Your task to perform on an android device: set the timer Image 0: 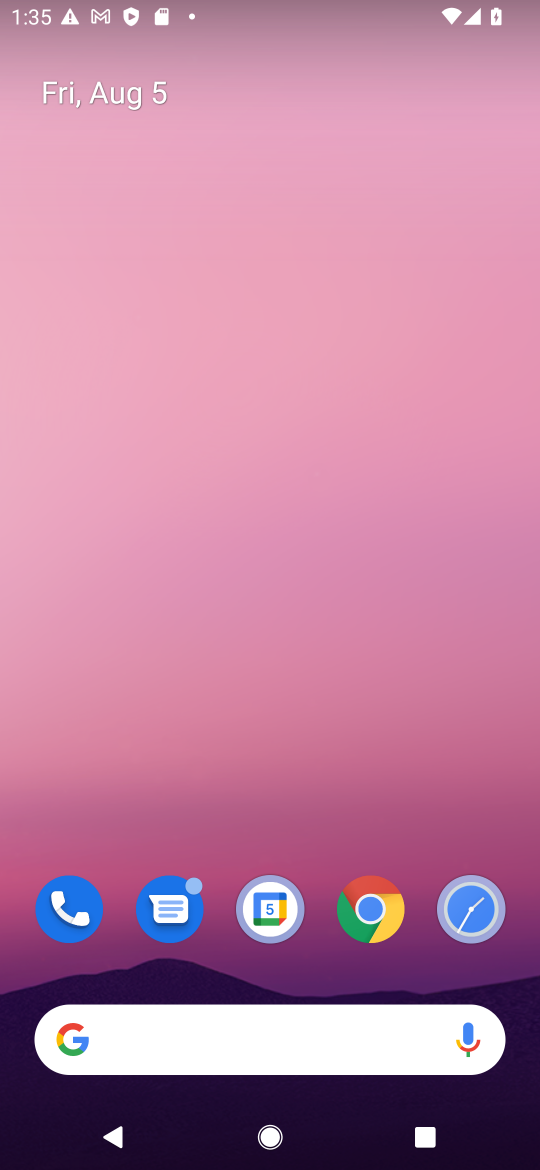
Step 0: drag from (232, 232) to (197, 10)
Your task to perform on an android device: set the timer Image 1: 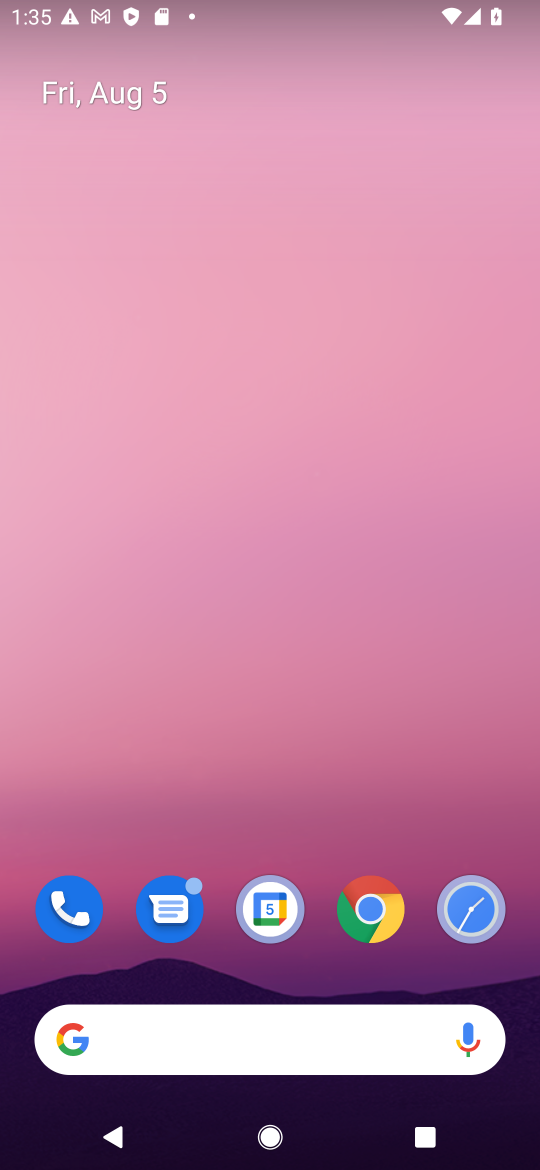
Step 1: drag from (304, 684) to (329, 29)
Your task to perform on an android device: set the timer Image 2: 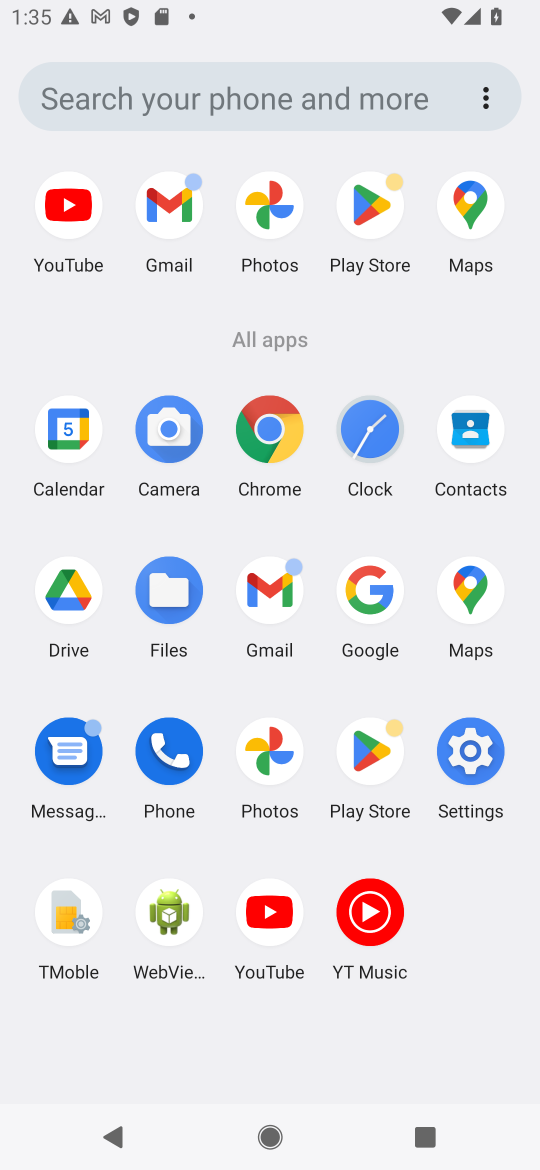
Step 2: click (374, 426)
Your task to perform on an android device: set the timer Image 3: 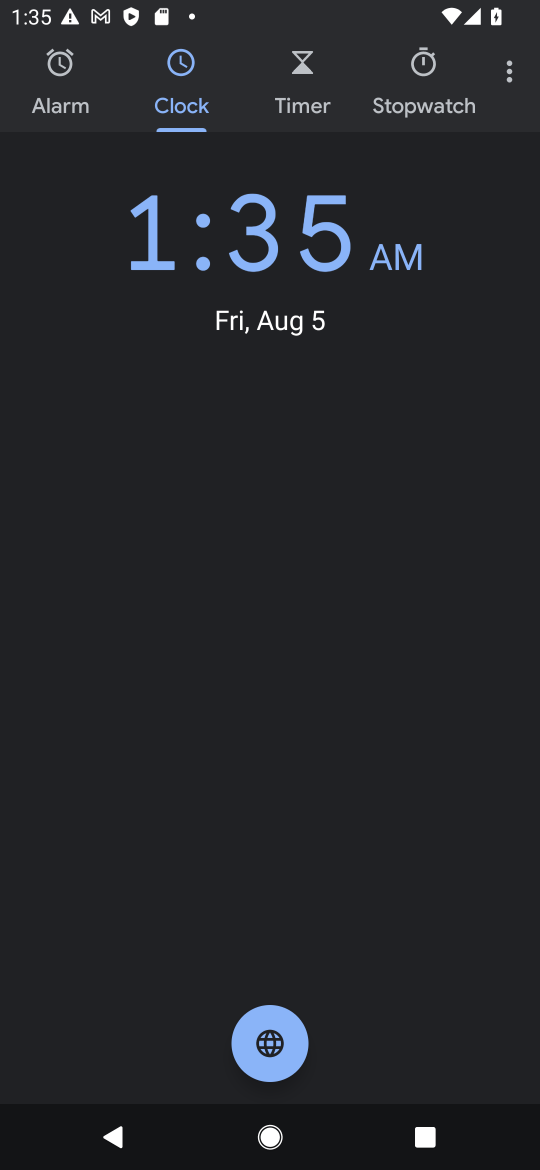
Step 3: click (291, 86)
Your task to perform on an android device: set the timer Image 4: 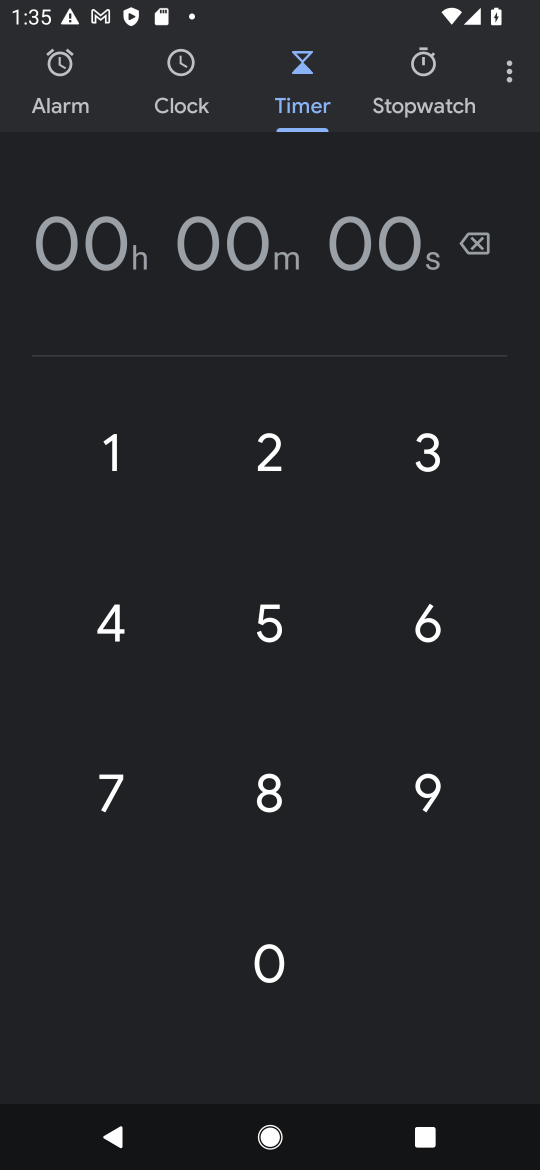
Step 4: click (121, 459)
Your task to perform on an android device: set the timer Image 5: 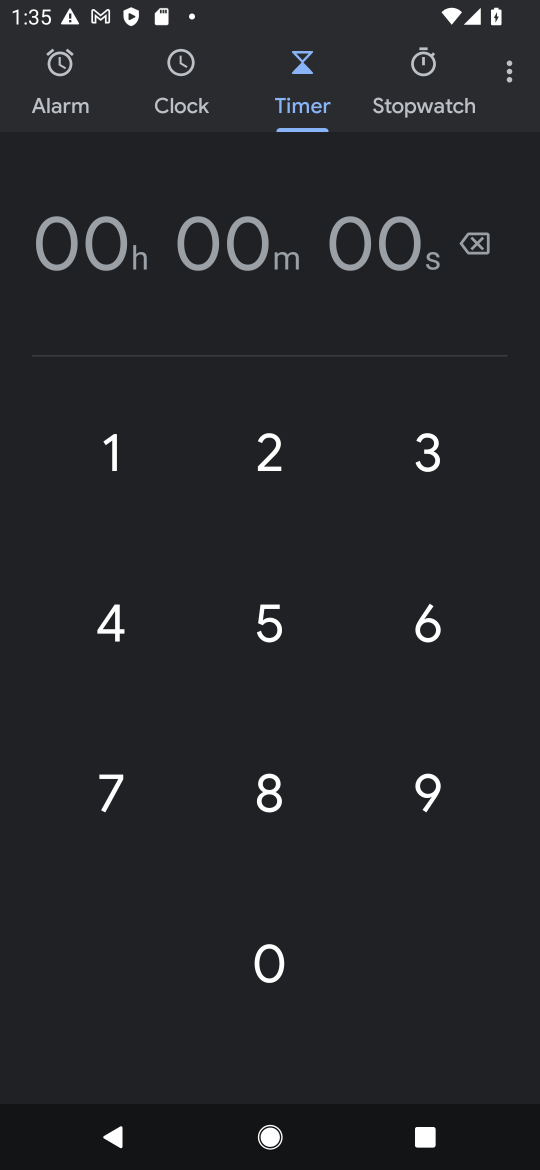
Step 5: click (121, 459)
Your task to perform on an android device: set the timer Image 6: 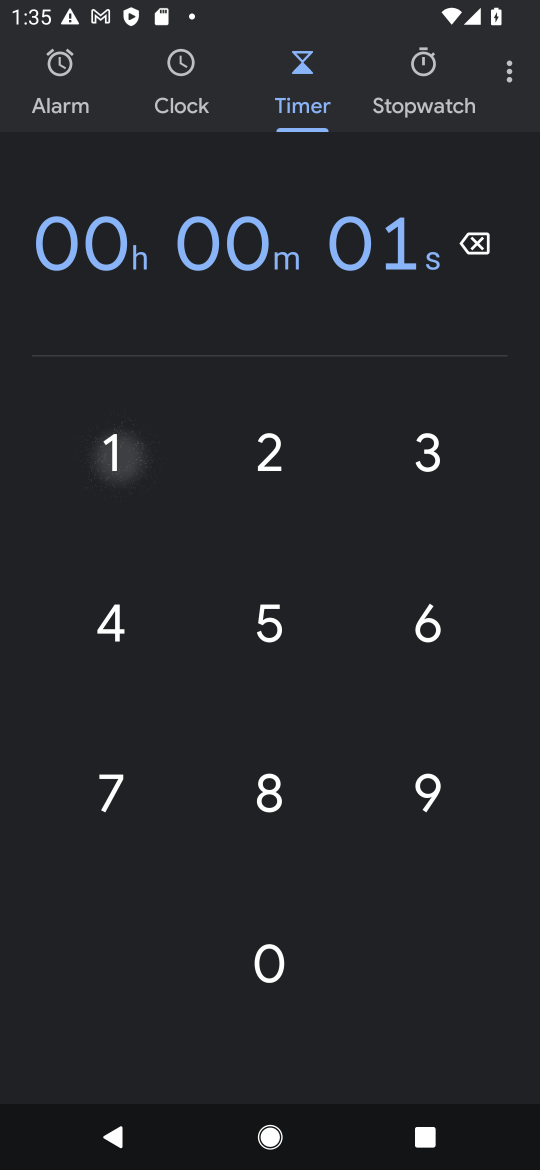
Step 6: click (121, 459)
Your task to perform on an android device: set the timer Image 7: 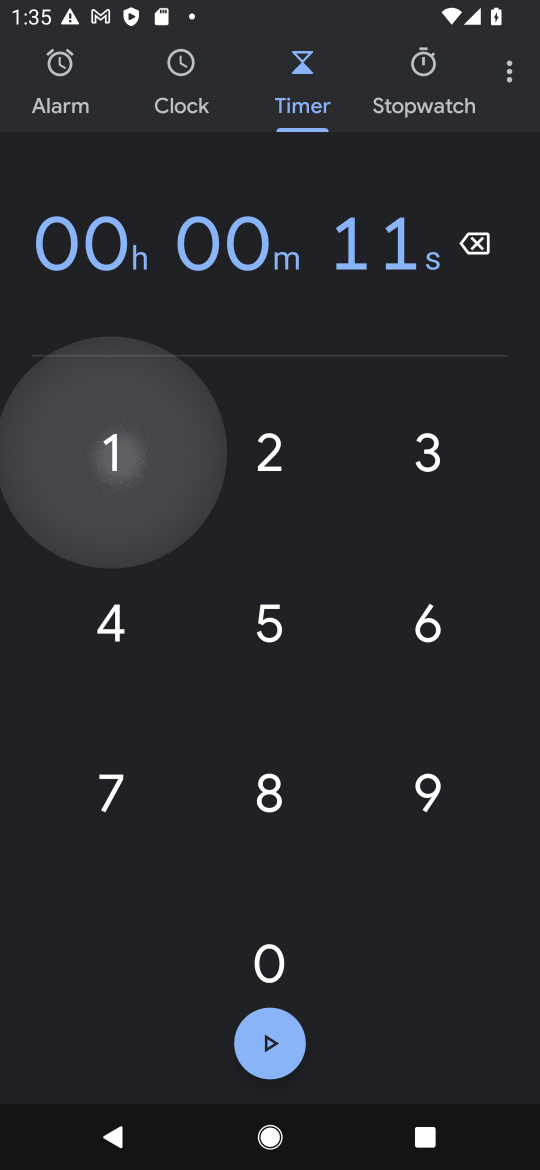
Step 7: click (121, 459)
Your task to perform on an android device: set the timer Image 8: 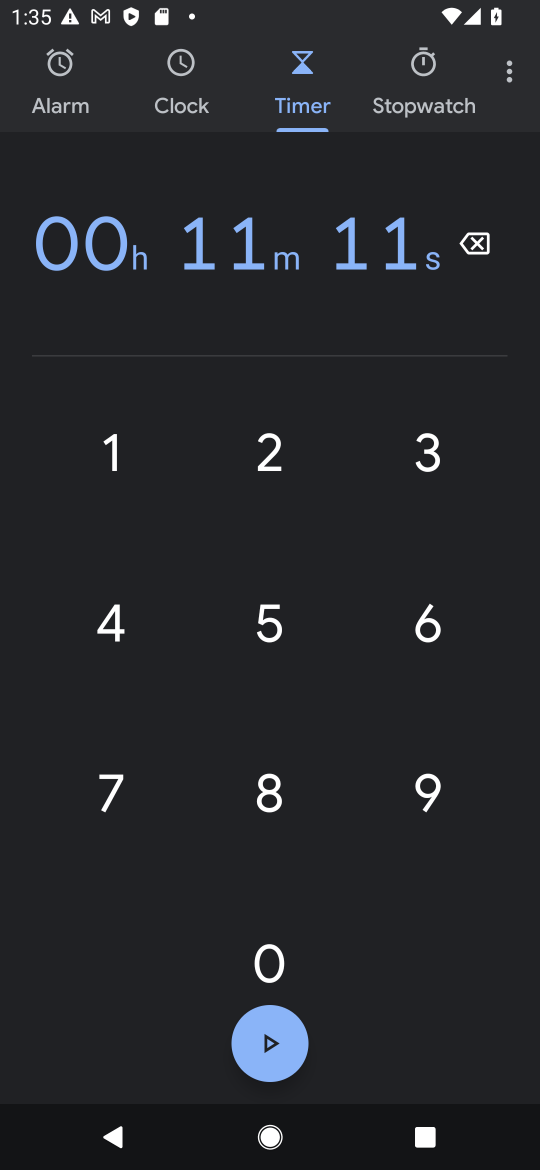
Step 8: click (121, 459)
Your task to perform on an android device: set the timer Image 9: 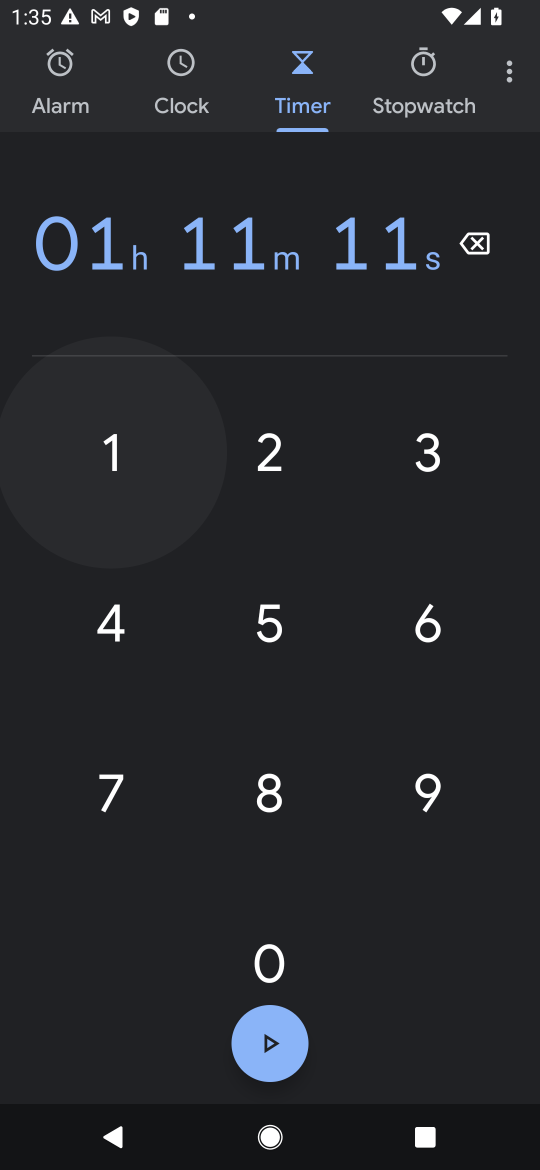
Step 9: click (121, 459)
Your task to perform on an android device: set the timer Image 10: 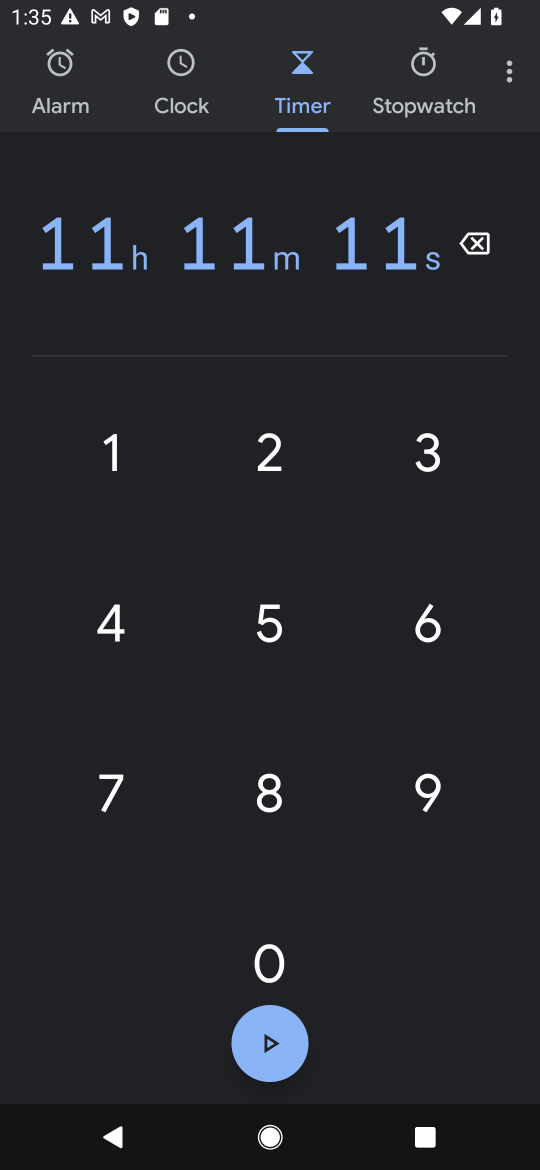
Step 10: task complete